Your task to perform on an android device: find snoozed emails in the gmail app Image 0: 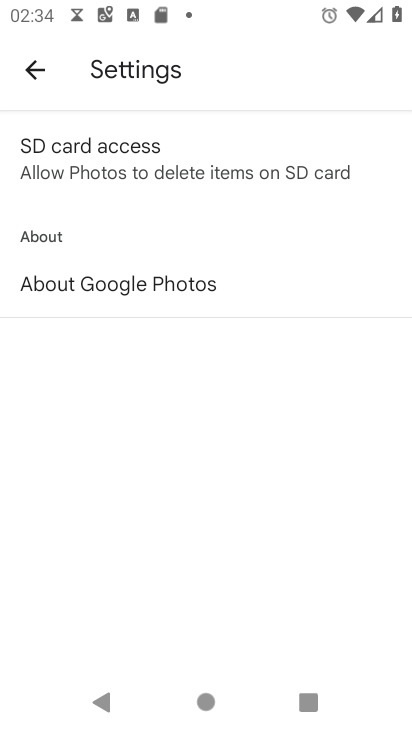
Step 0: press home button
Your task to perform on an android device: find snoozed emails in the gmail app Image 1: 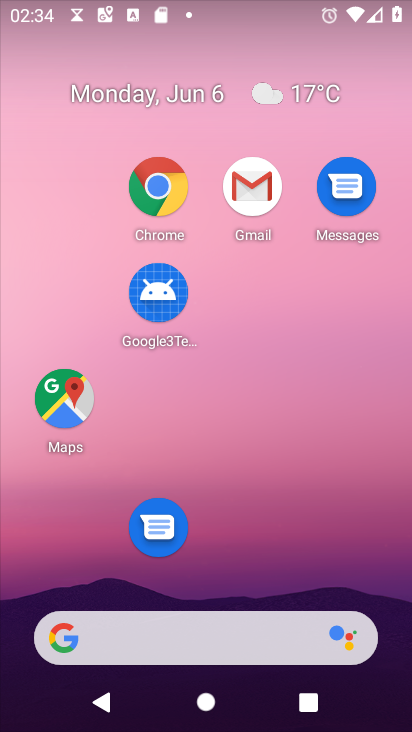
Step 1: click (246, 189)
Your task to perform on an android device: find snoozed emails in the gmail app Image 2: 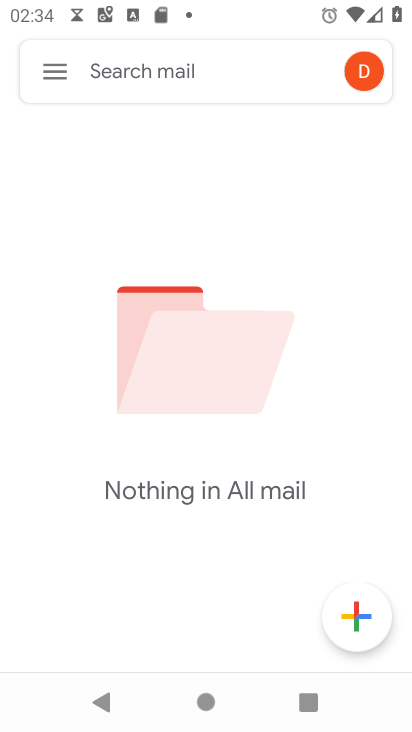
Step 2: click (67, 62)
Your task to perform on an android device: find snoozed emails in the gmail app Image 3: 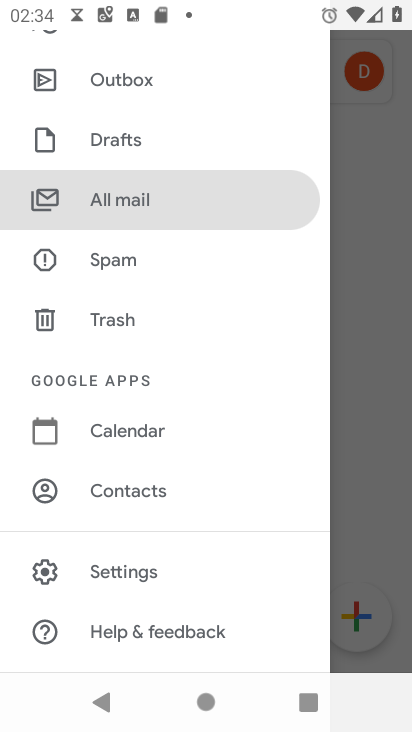
Step 3: drag from (300, 222) to (208, 507)
Your task to perform on an android device: find snoozed emails in the gmail app Image 4: 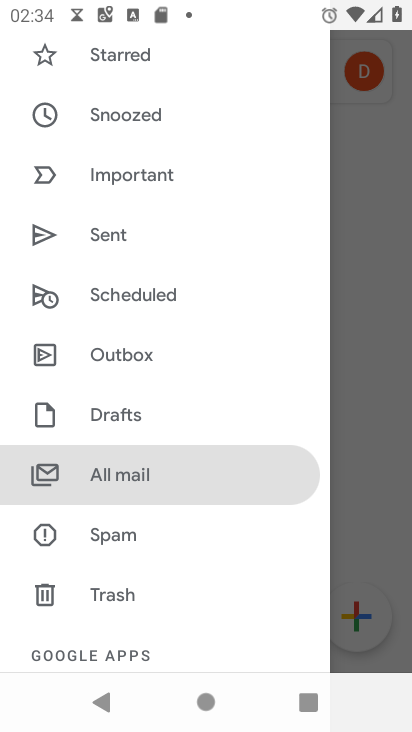
Step 4: click (162, 119)
Your task to perform on an android device: find snoozed emails in the gmail app Image 5: 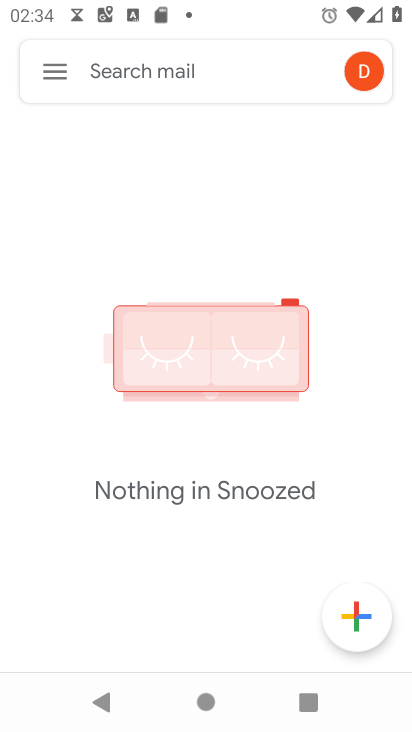
Step 5: task complete